Your task to perform on an android device: change notification settings in the gmail app Image 0: 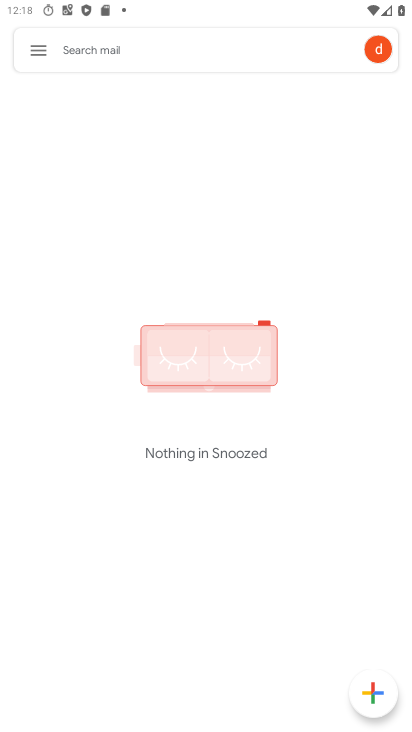
Step 0: click (38, 50)
Your task to perform on an android device: change notification settings in the gmail app Image 1: 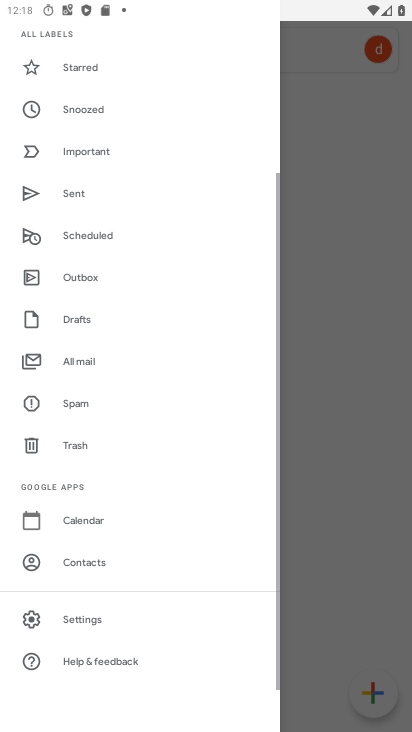
Step 1: drag from (162, 662) to (196, 250)
Your task to perform on an android device: change notification settings in the gmail app Image 2: 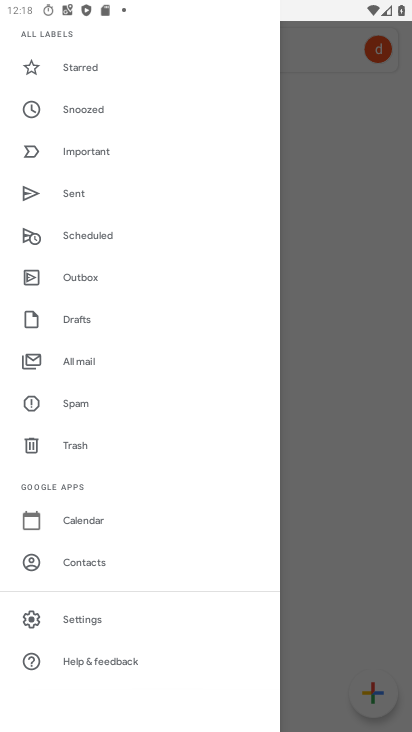
Step 2: click (80, 621)
Your task to perform on an android device: change notification settings in the gmail app Image 3: 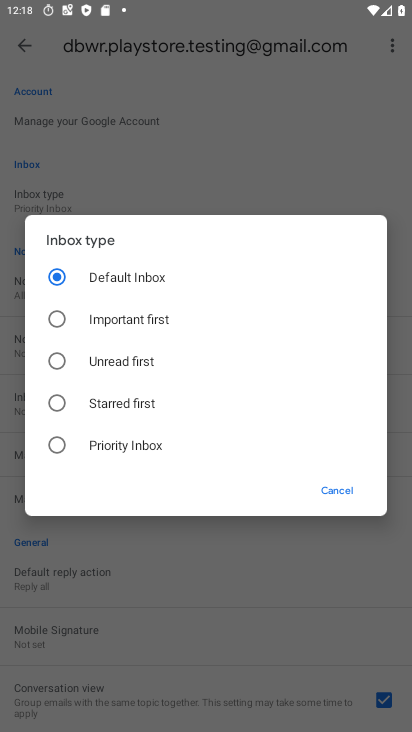
Step 3: click (341, 492)
Your task to perform on an android device: change notification settings in the gmail app Image 4: 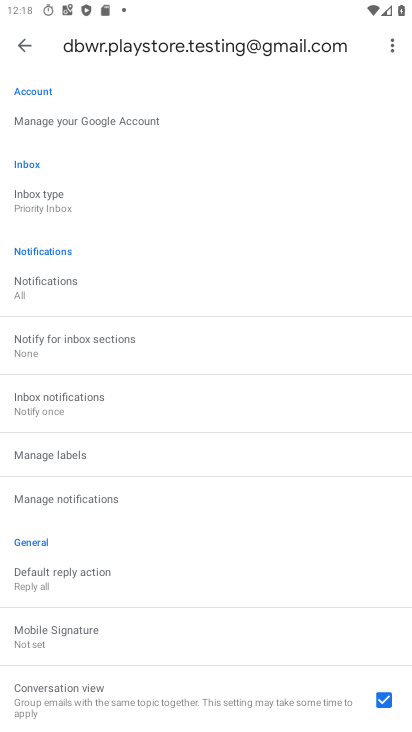
Step 4: drag from (135, 708) to (180, 338)
Your task to perform on an android device: change notification settings in the gmail app Image 5: 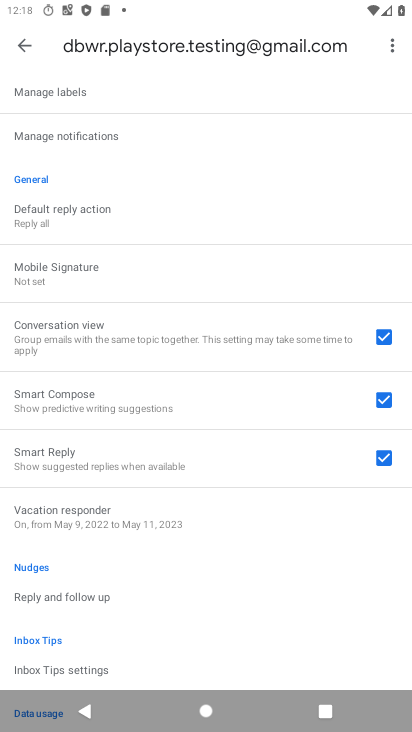
Step 5: click (104, 125)
Your task to perform on an android device: change notification settings in the gmail app Image 6: 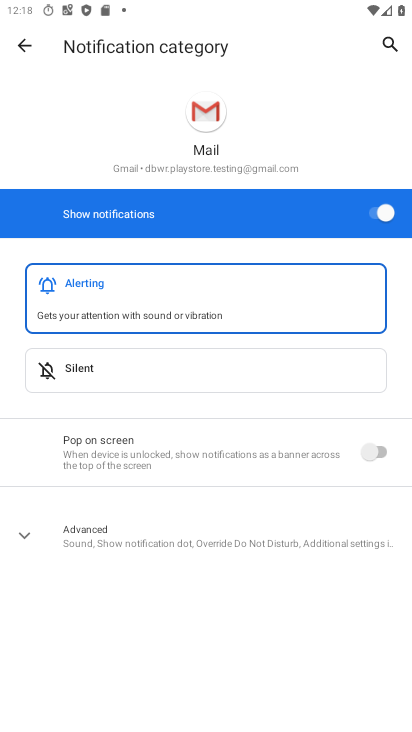
Step 6: click (376, 207)
Your task to perform on an android device: change notification settings in the gmail app Image 7: 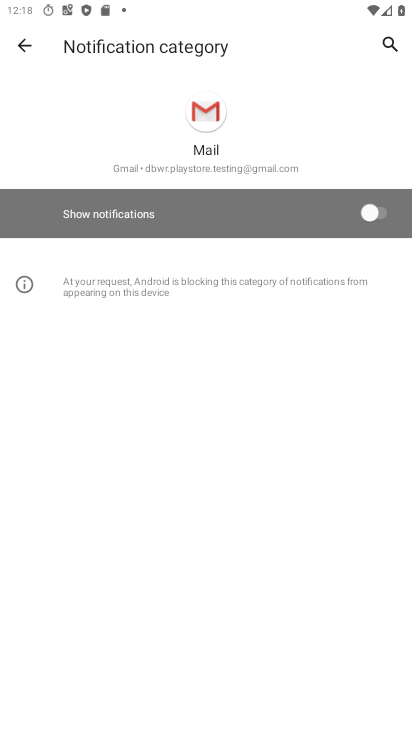
Step 7: task complete